Your task to perform on an android device: turn off picture-in-picture Image 0: 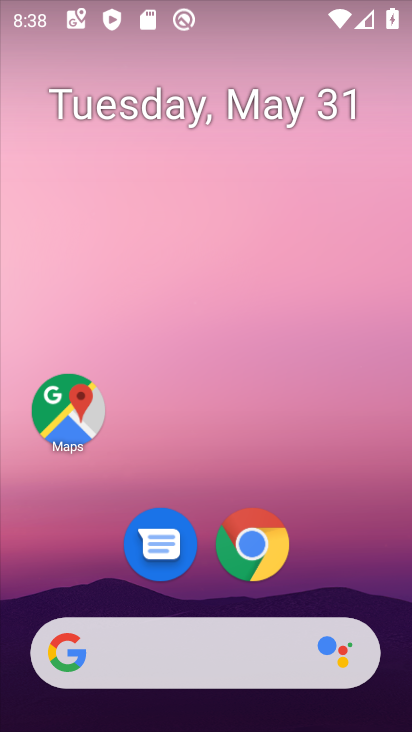
Step 0: click (261, 539)
Your task to perform on an android device: turn off picture-in-picture Image 1: 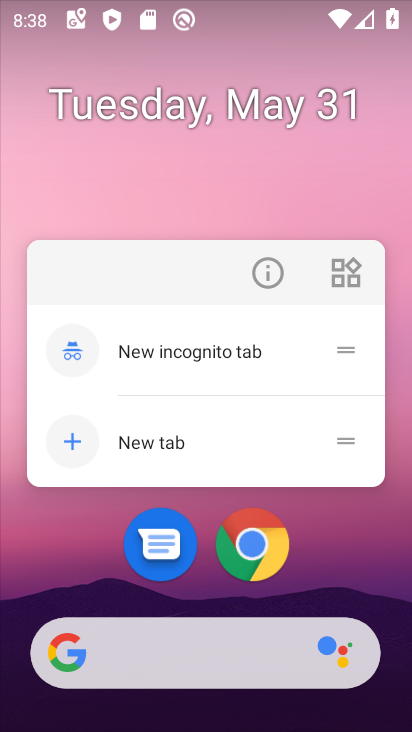
Step 1: click (259, 263)
Your task to perform on an android device: turn off picture-in-picture Image 2: 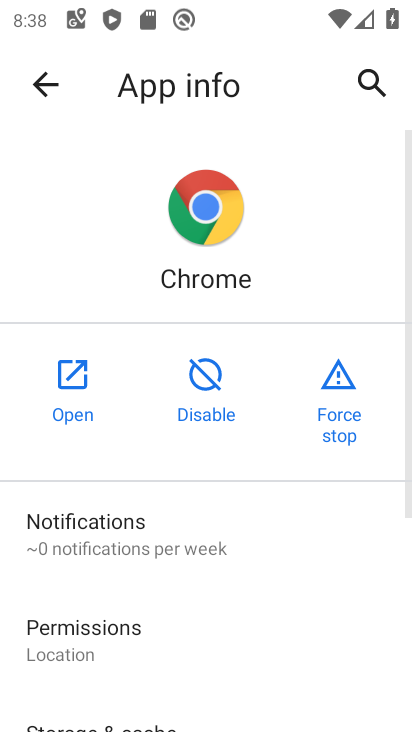
Step 2: drag from (218, 662) to (217, 31)
Your task to perform on an android device: turn off picture-in-picture Image 3: 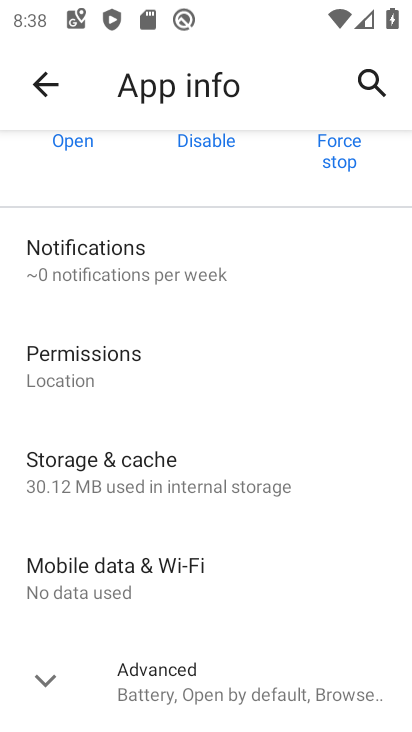
Step 3: click (178, 674)
Your task to perform on an android device: turn off picture-in-picture Image 4: 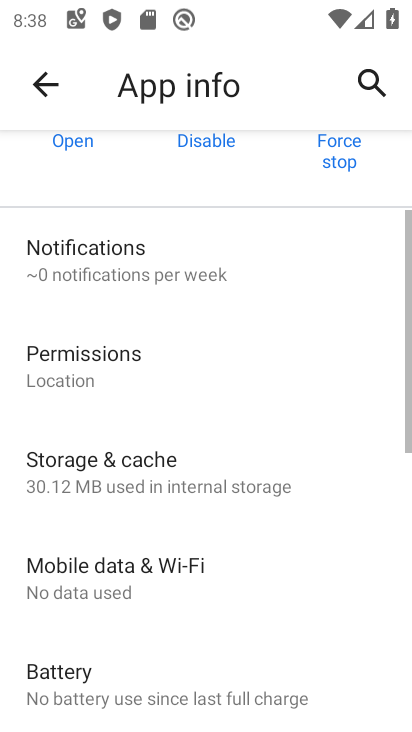
Step 4: drag from (184, 663) to (223, 88)
Your task to perform on an android device: turn off picture-in-picture Image 5: 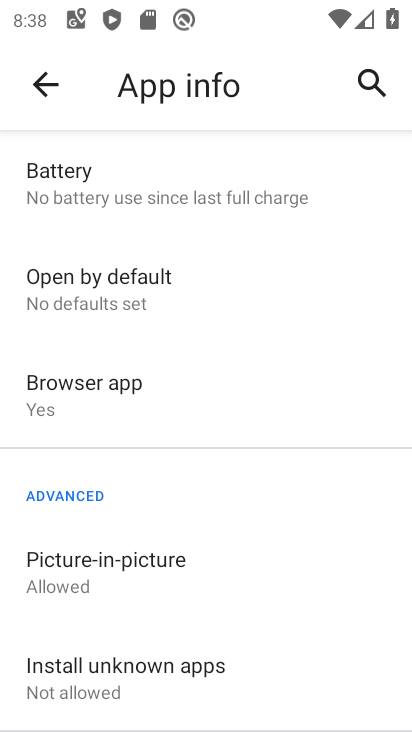
Step 5: click (142, 590)
Your task to perform on an android device: turn off picture-in-picture Image 6: 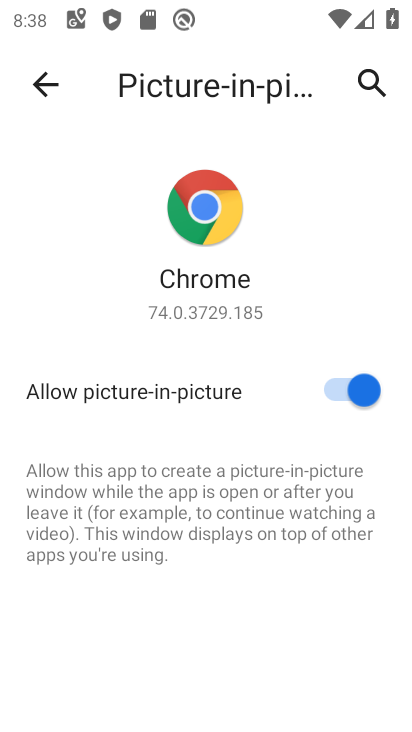
Step 6: click (334, 397)
Your task to perform on an android device: turn off picture-in-picture Image 7: 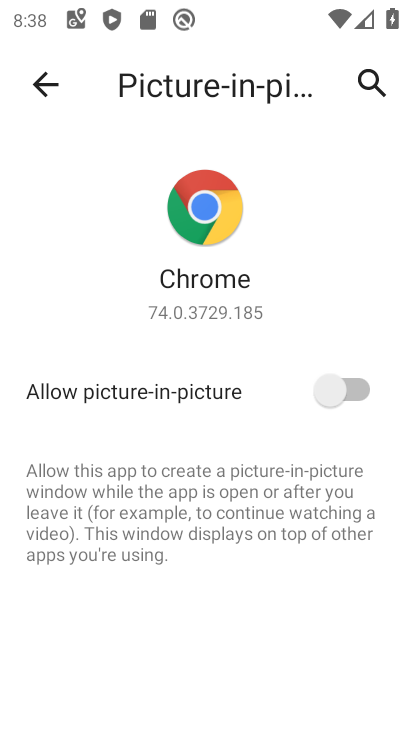
Step 7: task complete